Your task to perform on an android device: Go to Maps Image 0: 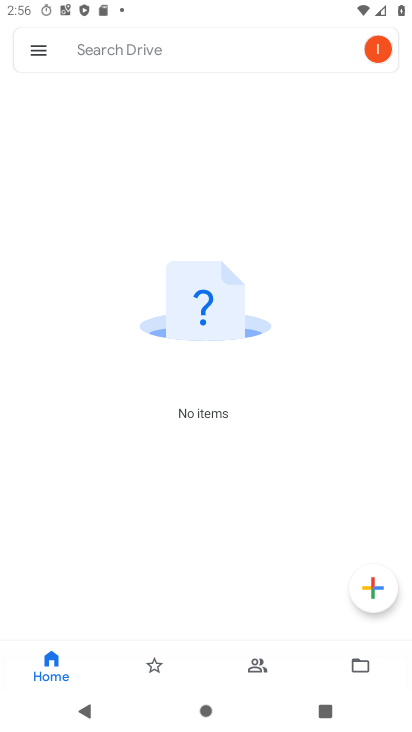
Step 0: press home button
Your task to perform on an android device: Go to Maps Image 1: 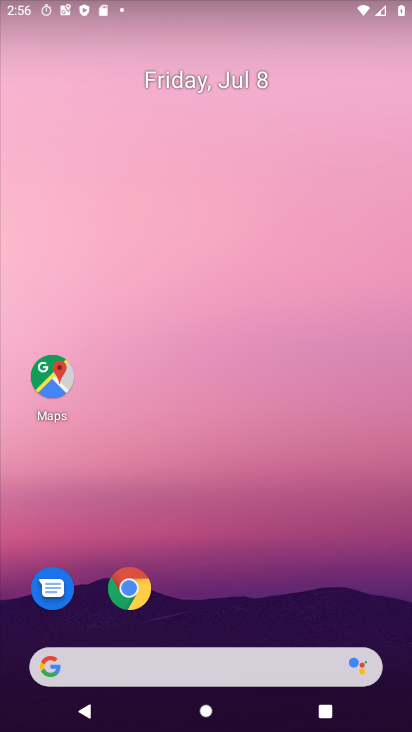
Step 1: click (58, 381)
Your task to perform on an android device: Go to Maps Image 2: 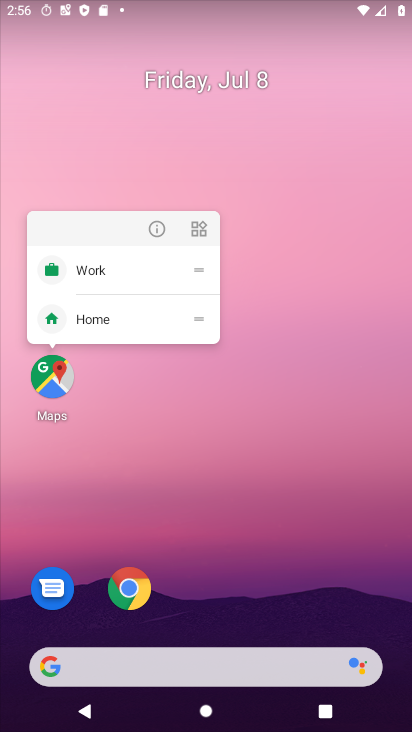
Step 2: click (60, 381)
Your task to perform on an android device: Go to Maps Image 3: 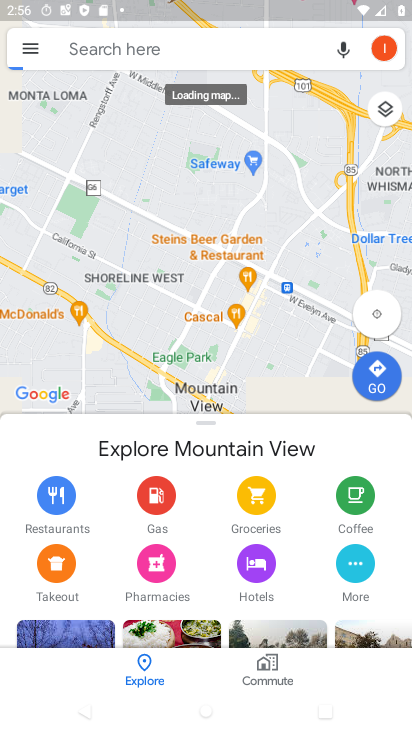
Step 3: task complete